Your task to perform on an android device: Clear the shopping cart on ebay.com. Search for "panasonic triple a" on ebay.com, select the first entry, and add it to the cart. Image 0: 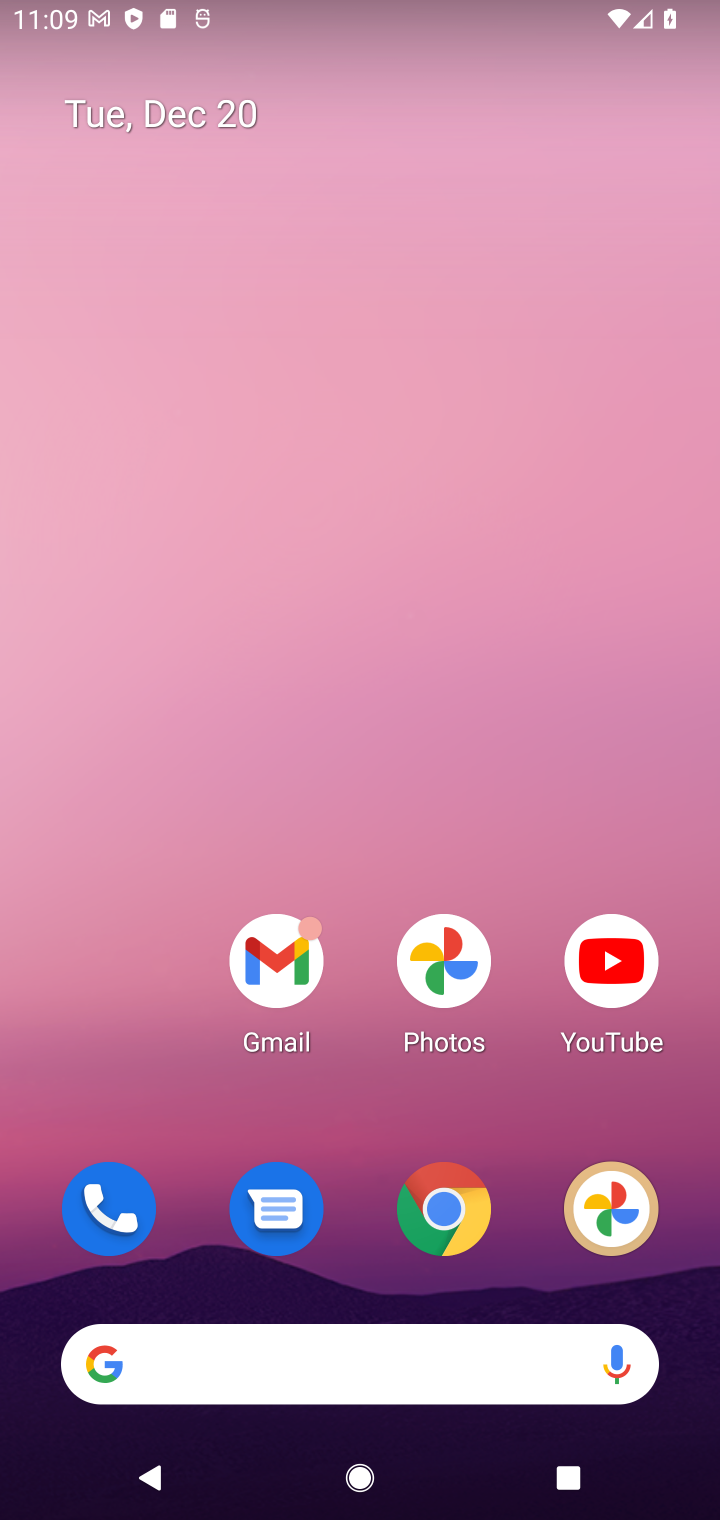
Step 0: click (450, 1206)
Your task to perform on an android device: Clear the shopping cart on ebay.com. Search for "panasonic triple a" on ebay.com, select the first entry, and add it to the cart. Image 1: 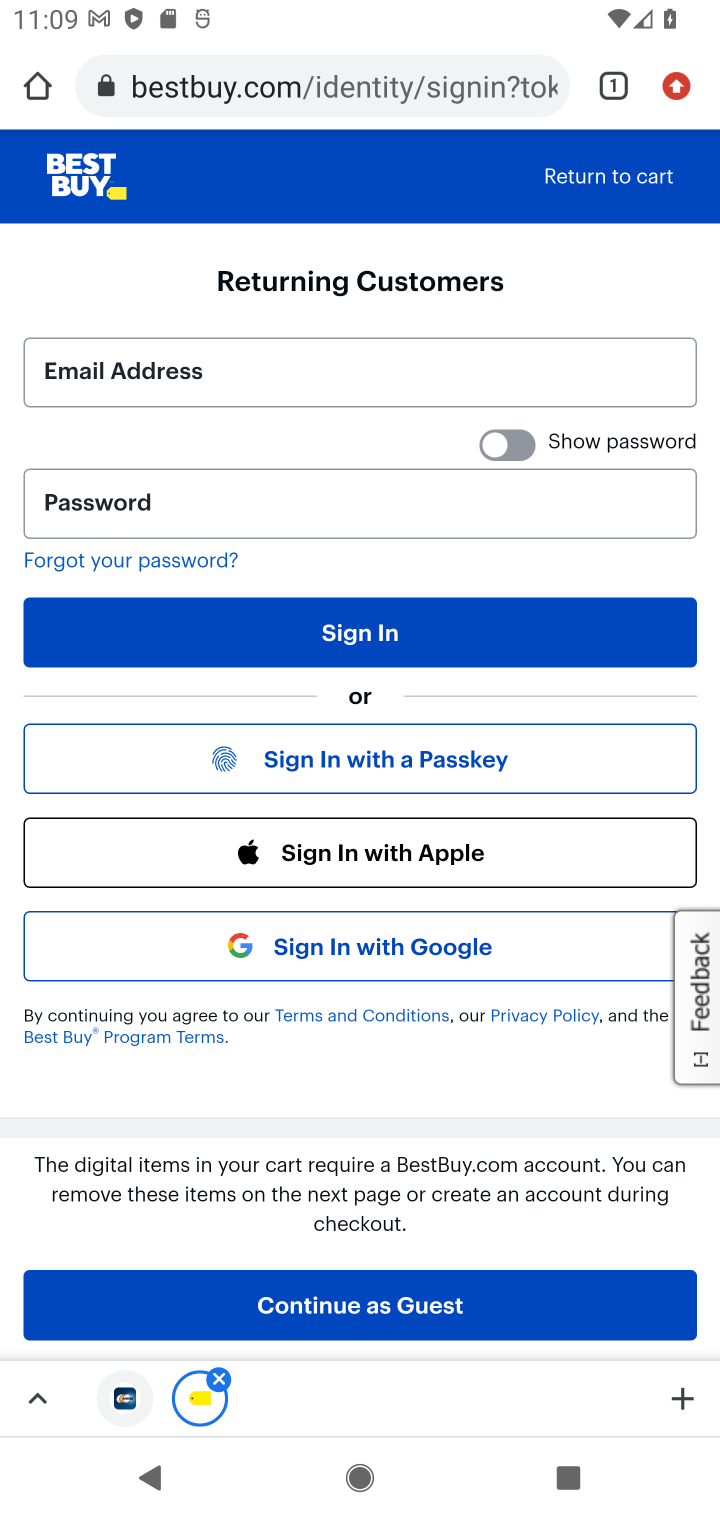
Step 1: click (232, 88)
Your task to perform on an android device: Clear the shopping cart on ebay.com. Search for "panasonic triple a" on ebay.com, select the first entry, and add it to the cart. Image 2: 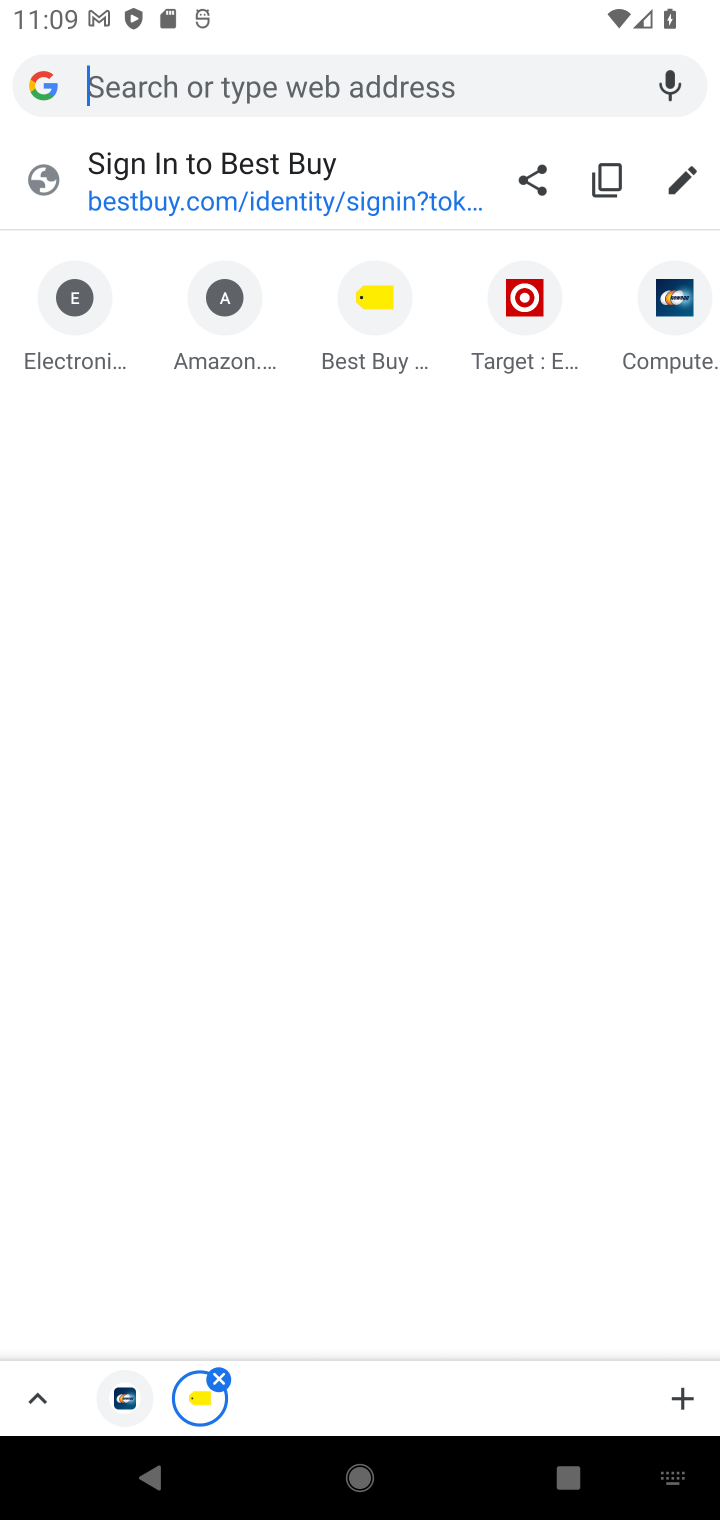
Step 2: type "ebay.com"
Your task to perform on an android device: Clear the shopping cart on ebay.com. Search for "panasonic triple a" on ebay.com, select the first entry, and add it to the cart. Image 3: 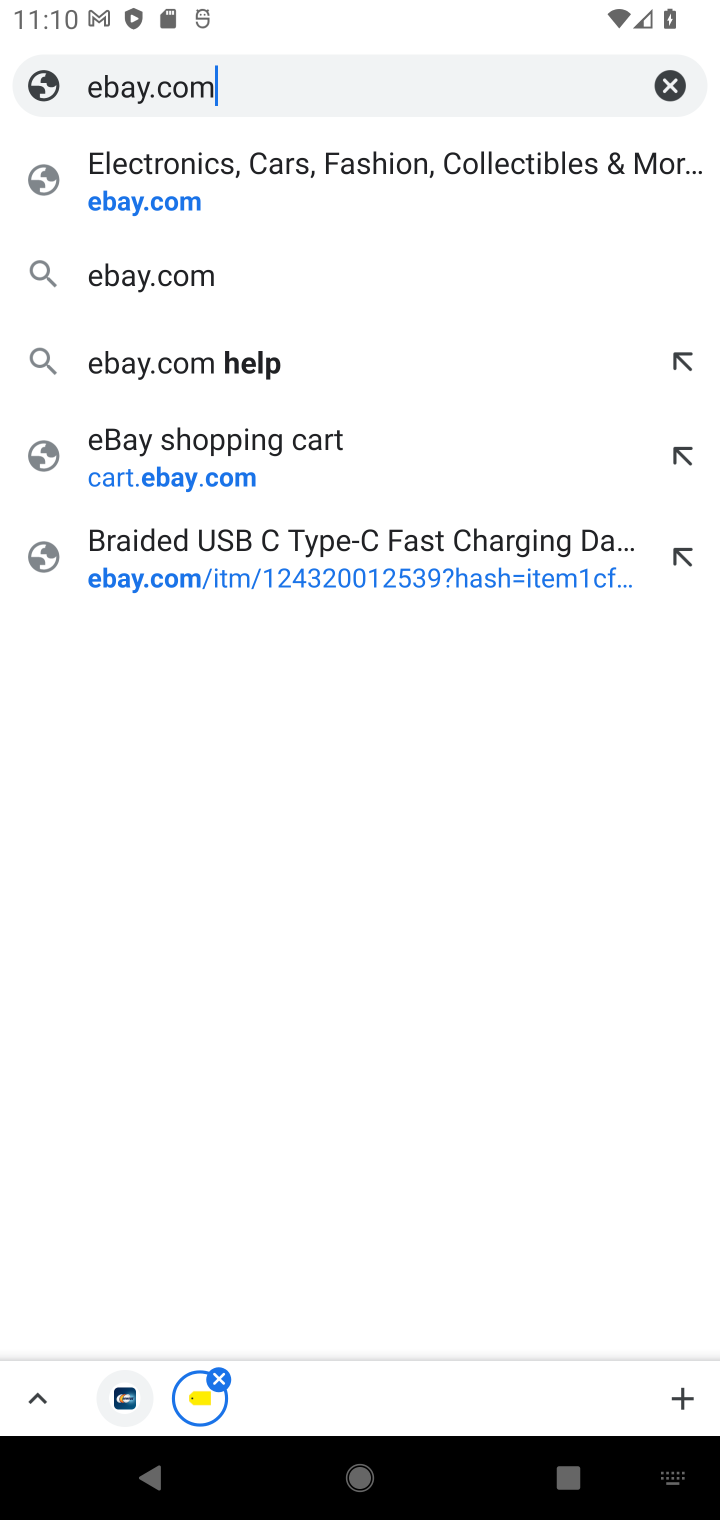
Step 3: click (153, 213)
Your task to perform on an android device: Clear the shopping cart on ebay.com. Search for "panasonic triple a" on ebay.com, select the first entry, and add it to the cart. Image 4: 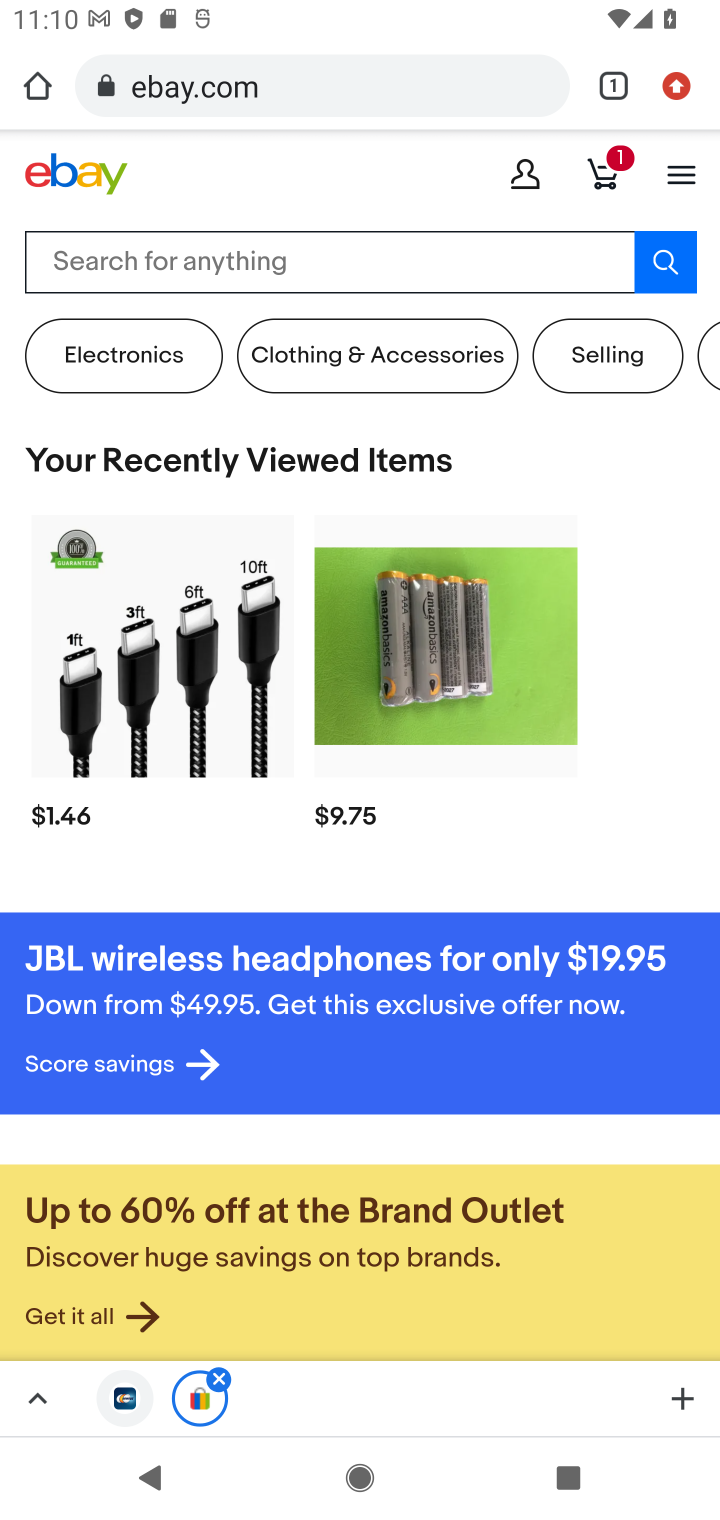
Step 4: click (601, 181)
Your task to perform on an android device: Clear the shopping cart on ebay.com. Search for "panasonic triple a" on ebay.com, select the first entry, and add it to the cart. Image 5: 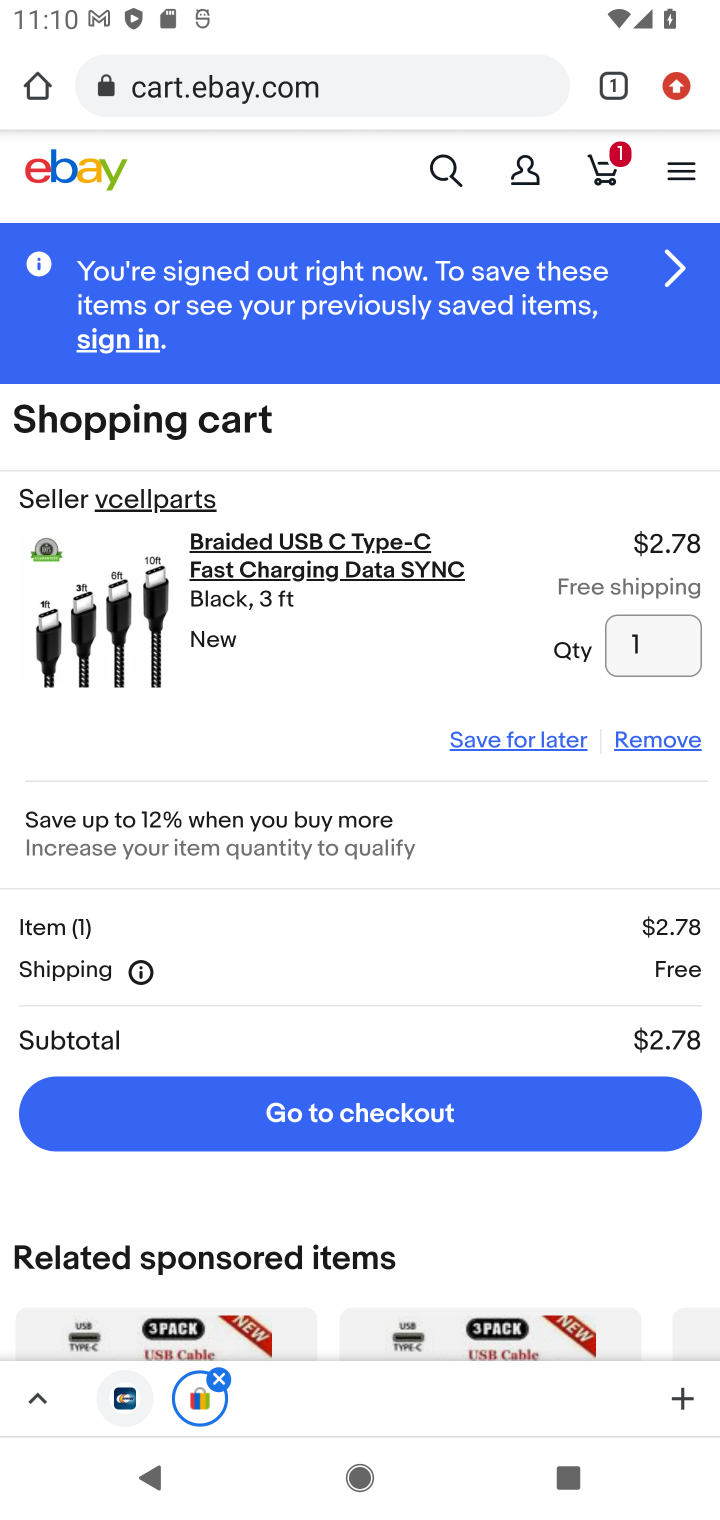
Step 5: click (656, 742)
Your task to perform on an android device: Clear the shopping cart on ebay.com. Search for "panasonic triple a" on ebay.com, select the first entry, and add it to the cart. Image 6: 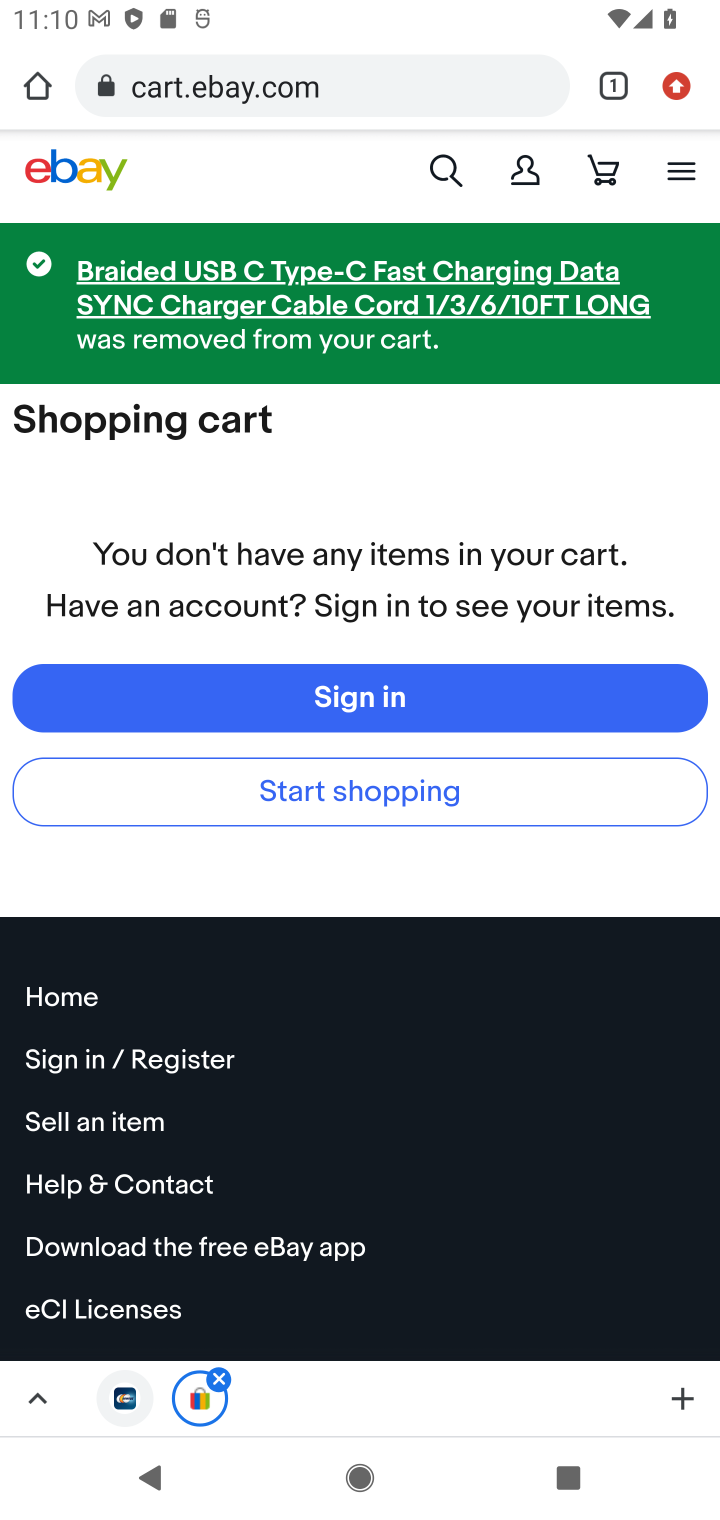
Step 6: click (435, 165)
Your task to perform on an android device: Clear the shopping cart on ebay.com. Search for "panasonic triple a" on ebay.com, select the first entry, and add it to the cart. Image 7: 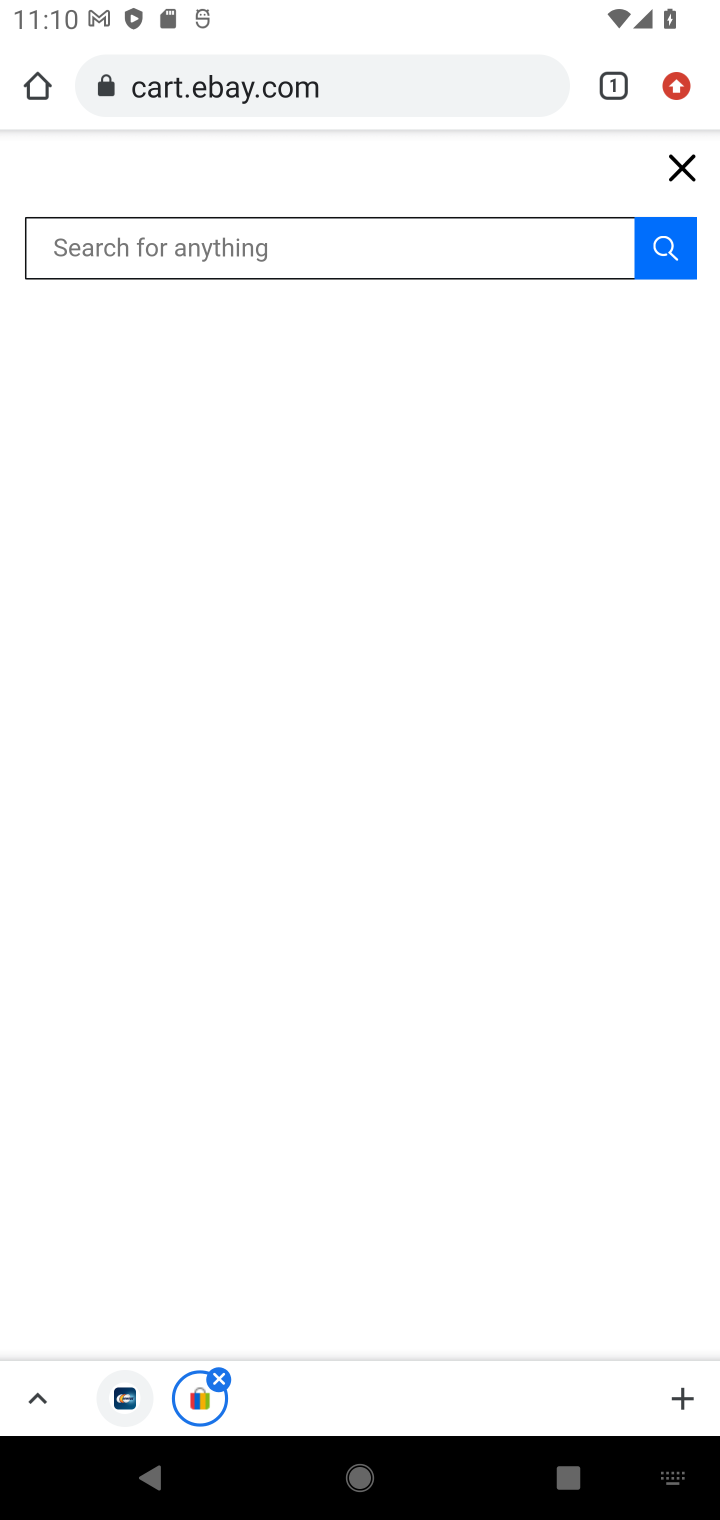
Step 7: type "panasonic triple a"
Your task to perform on an android device: Clear the shopping cart on ebay.com. Search for "panasonic triple a" on ebay.com, select the first entry, and add it to the cart. Image 8: 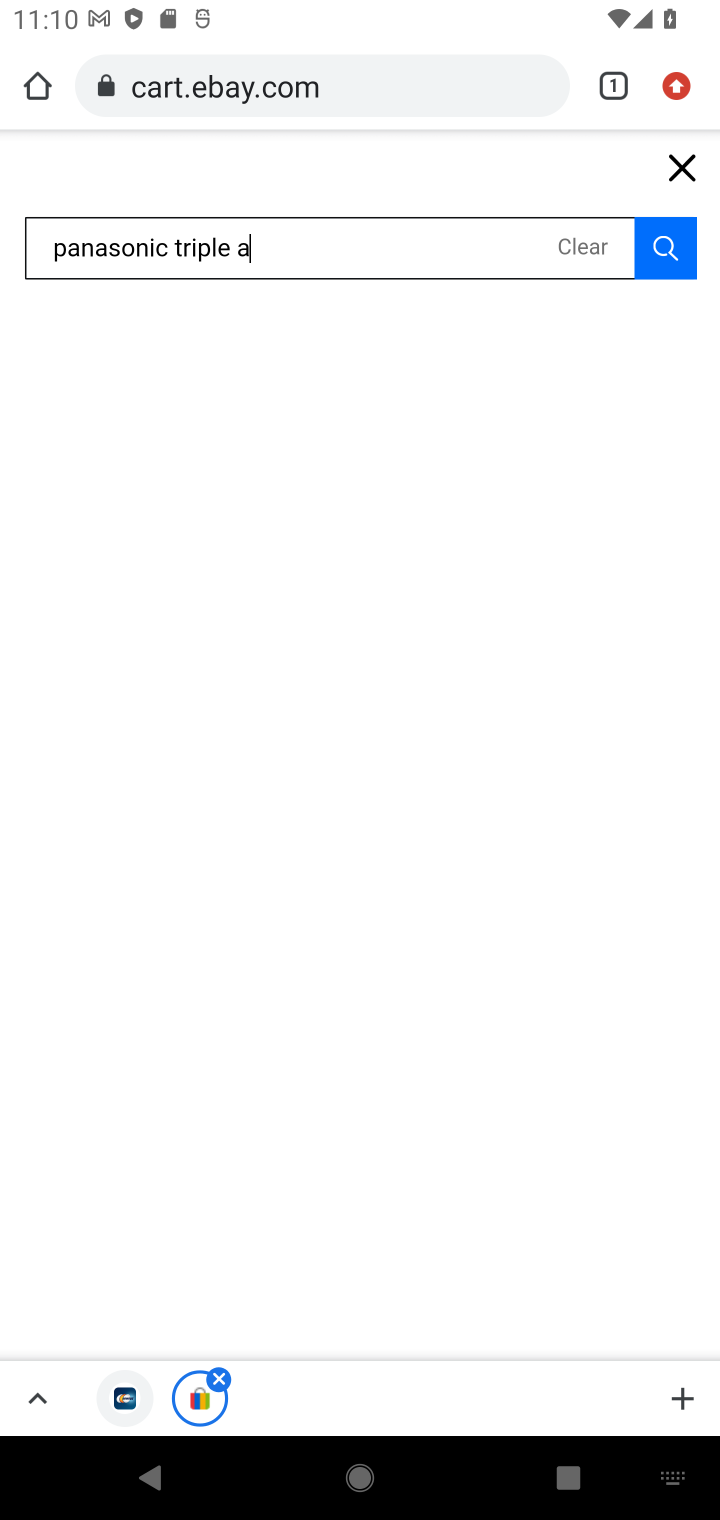
Step 8: click (663, 255)
Your task to perform on an android device: Clear the shopping cart on ebay.com. Search for "panasonic triple a" on ebay.com, select the first entry, and add it to the cart. Image 9: 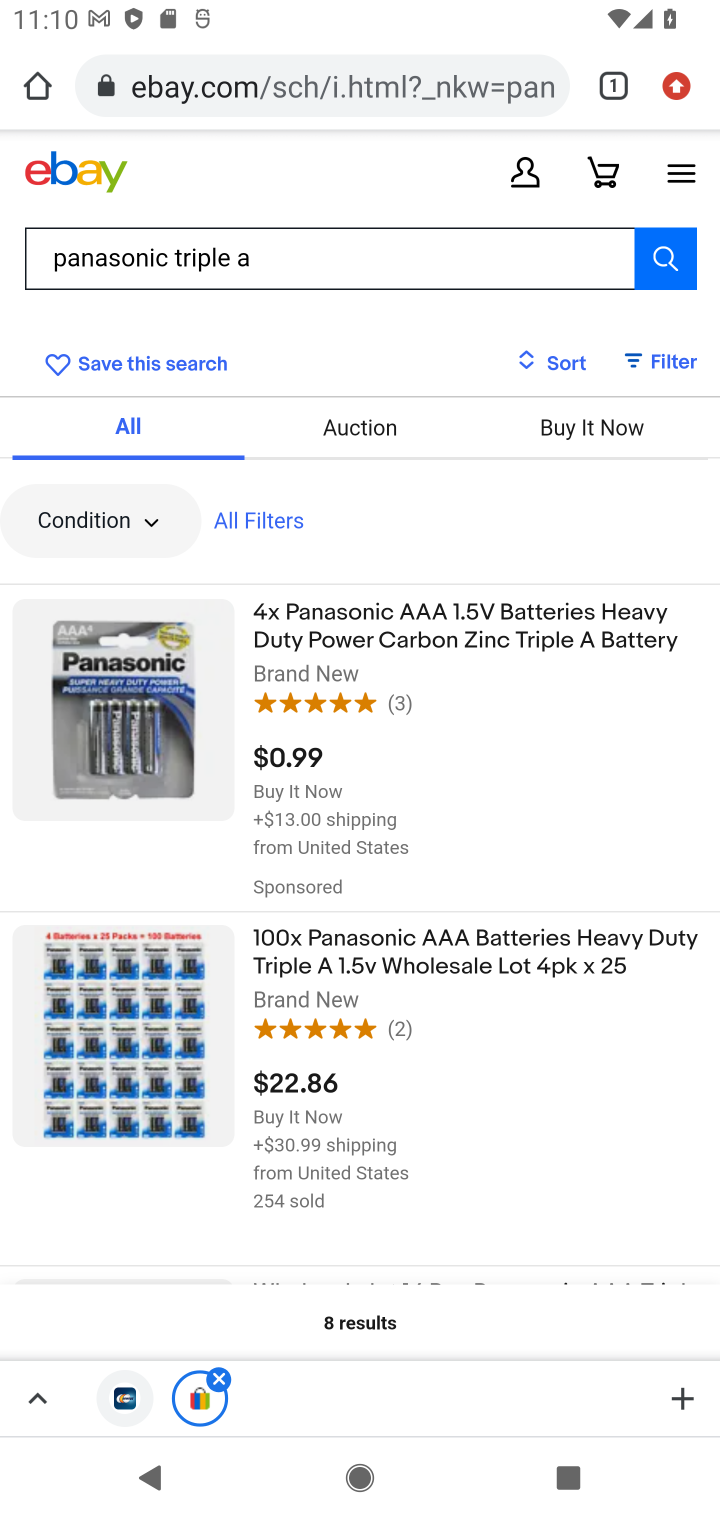
Step 9: click (352, 632)
Your task to perform on an android device: Clear the shopping cart on ebay.com. Search for "panasonic triple a" on ebay.com, select the first entry, and add it to the cart. Image 10: 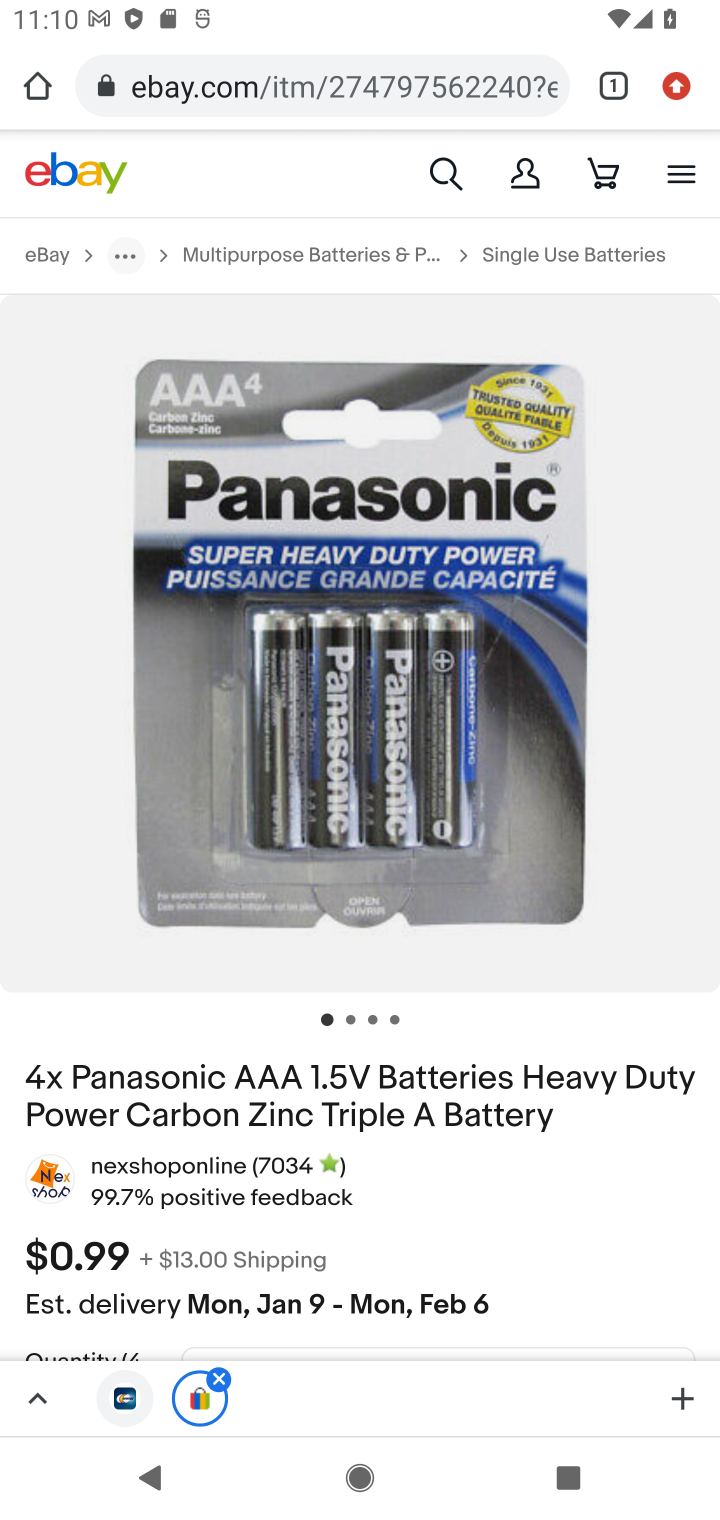
Step 10: drag from (300, 964) to (296, 637)
Your task to perform on an android device: Clear the shopping cart on ebay.com. Search for "panasonic triple a" on ebay.com, select the first entry, and add it to the cart. Image 11: 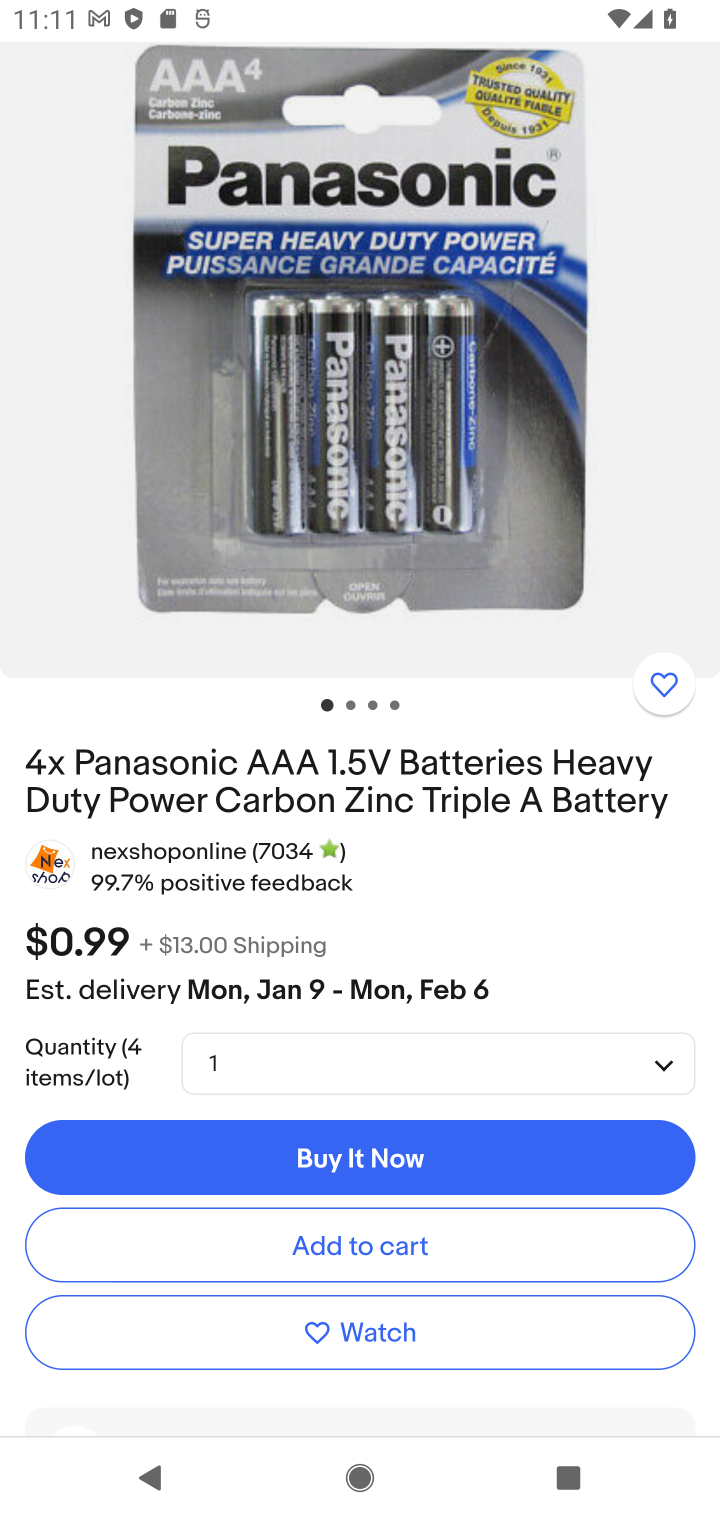
Step 11: click (316, 1236)
Your task to perform on an android device: Clear the shopping cart on ebay.com. Search for "panasonic triple a" on ebay.com, select the first entry, and add it to the cart. Image 12: 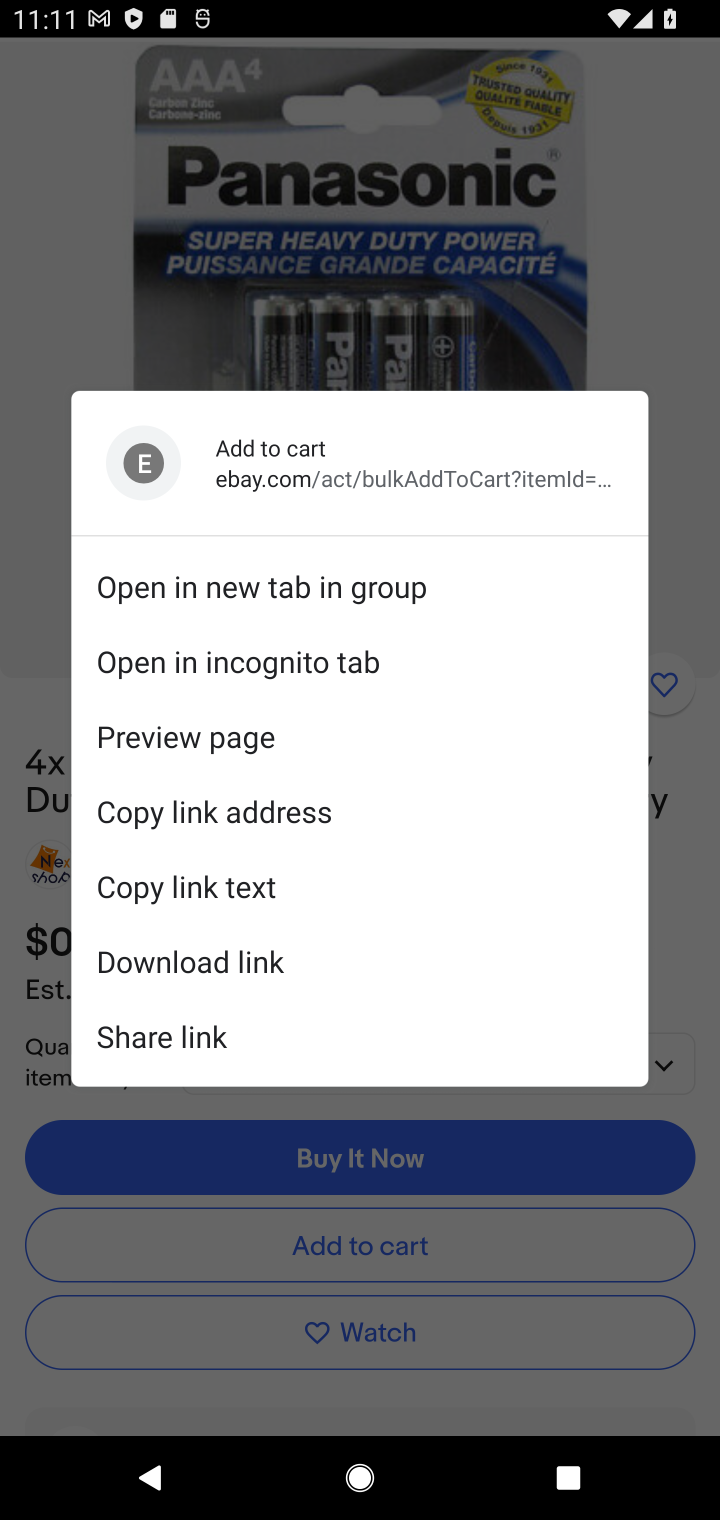
Step 12: click (333, 1234)
Your task to perform on an android device: Clear the shopping cart on ebay.com. Search for "panasonic triple a" on ebay.com, select the first entry, and add it to the cart. Image 13: 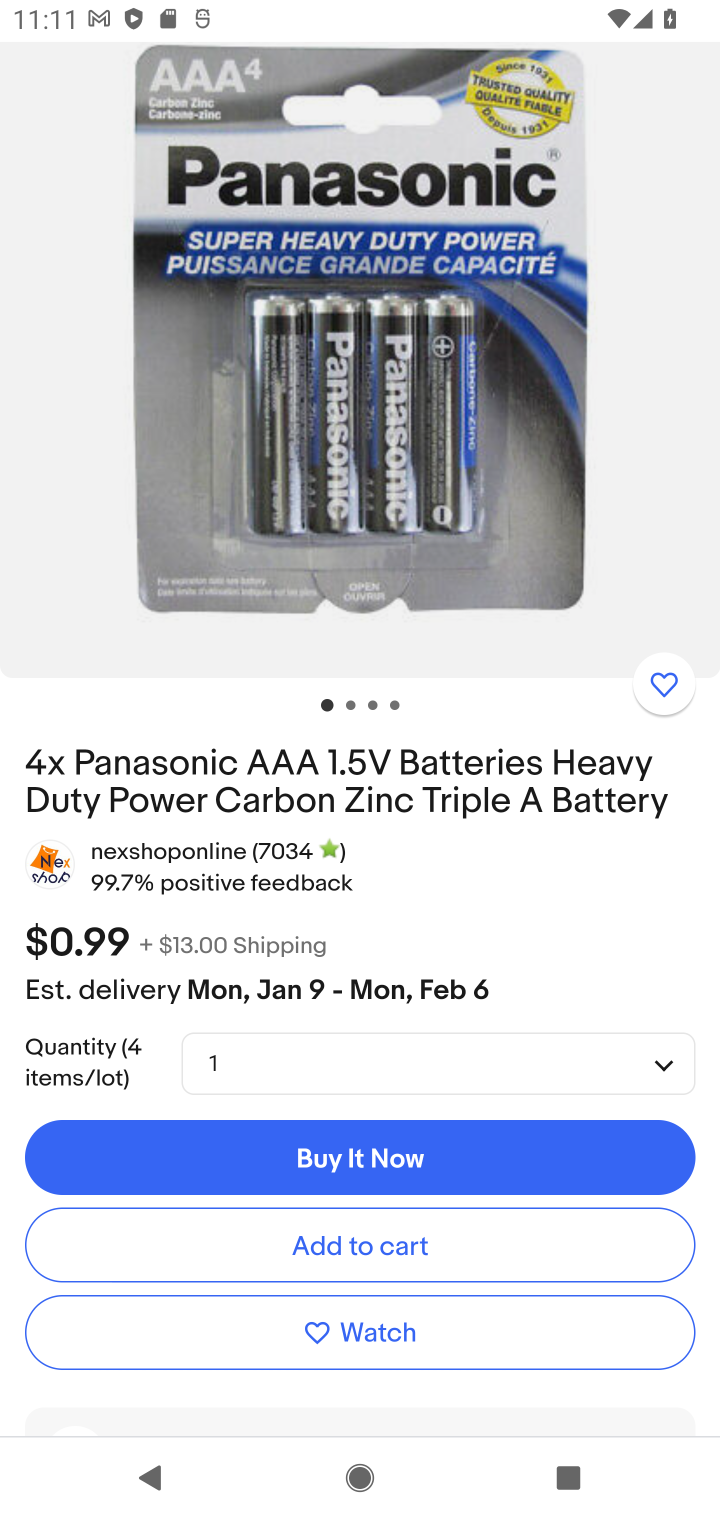
Step 13: click (331, 1249)
Your task to perform on an android device: Clear the shopping cart on ebay.com. Search for "panasonic triple a" on ebay.com, select the first entry, and add it to the cart. Image 14: 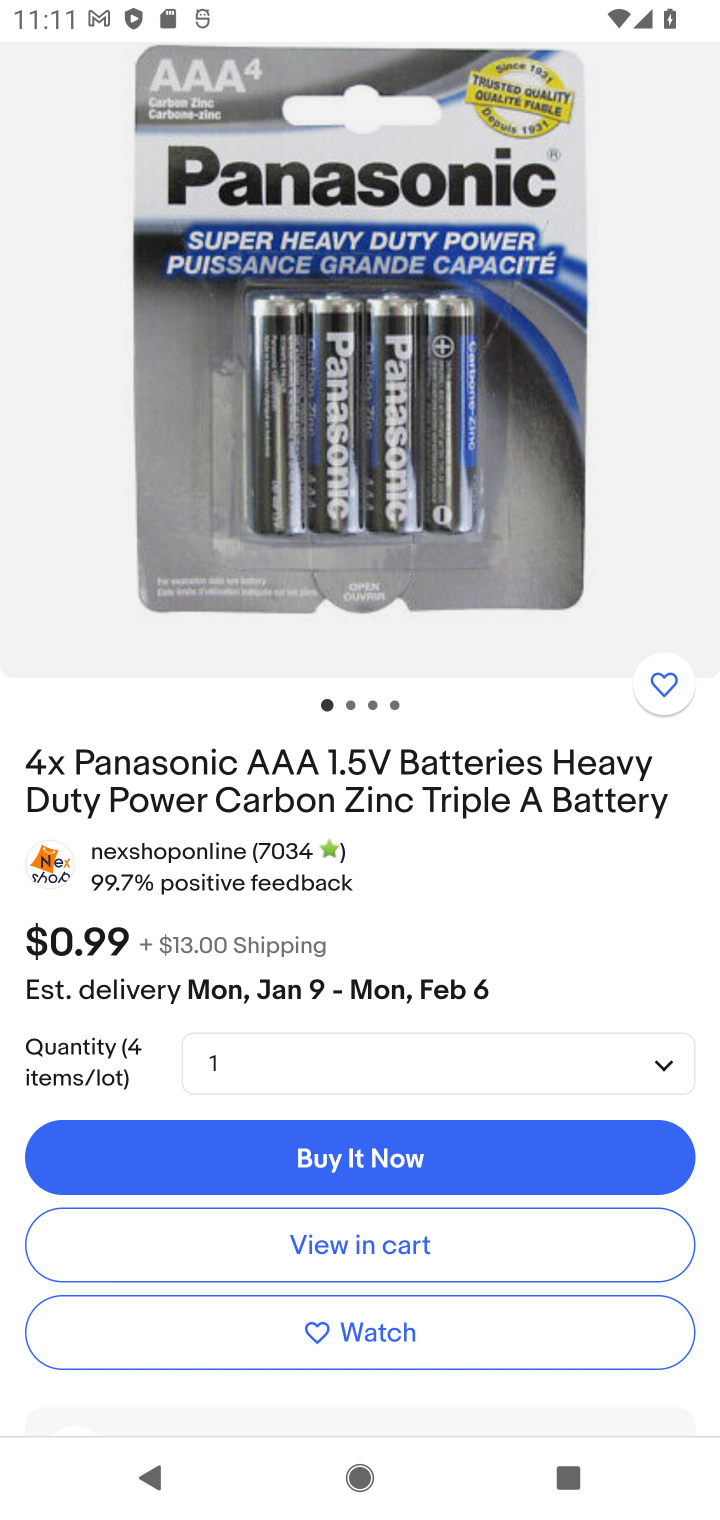
Step 14: task complete